Your task to perform on an android device: Is it going to rain this weekend? Image 0: 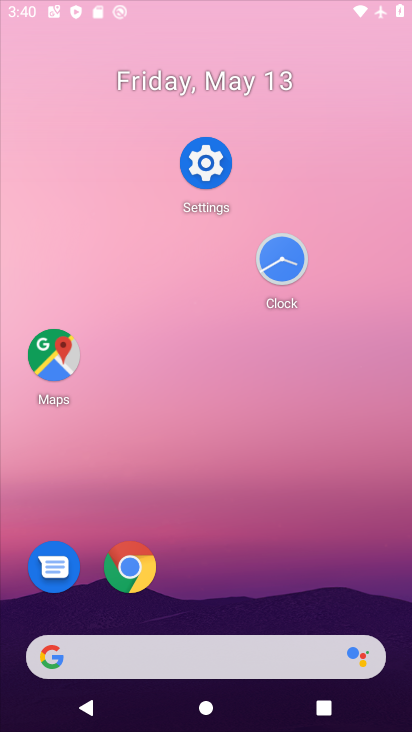
Step 0: click (224, 170)
Your task to perform on an android device: Is it going to rain this weekend? Image 1: 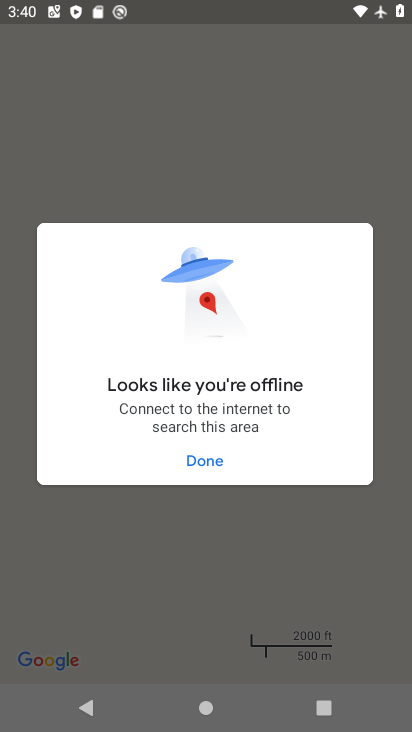
Step 1: click (229, 470)
Your task to perform on an android device: Is it going to rain this weekend? Image 2: 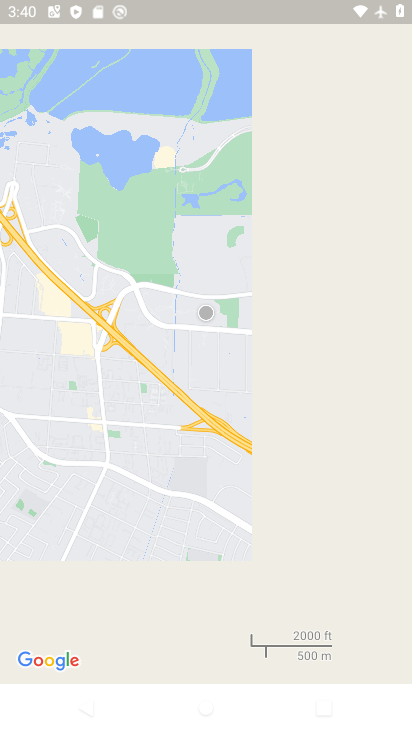
Step 2: press home button
Your task to perform on an android device: Is it going to rain this weekend? Image 3: 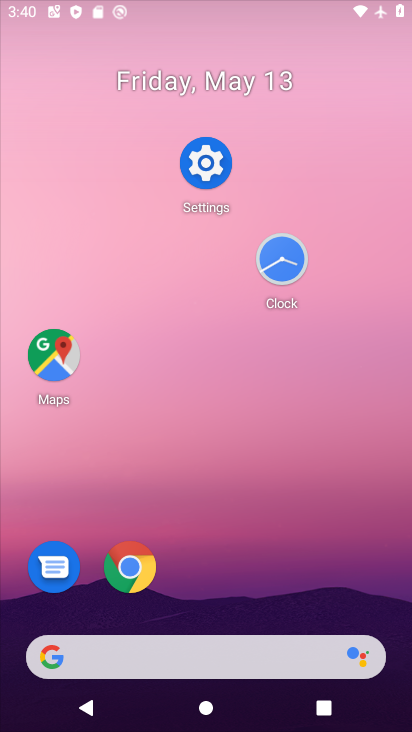
Step 3: drag from (217, 598) to (242, 154)
Your task to perform on an android device: Is it going to rain this weekend? Image 4: 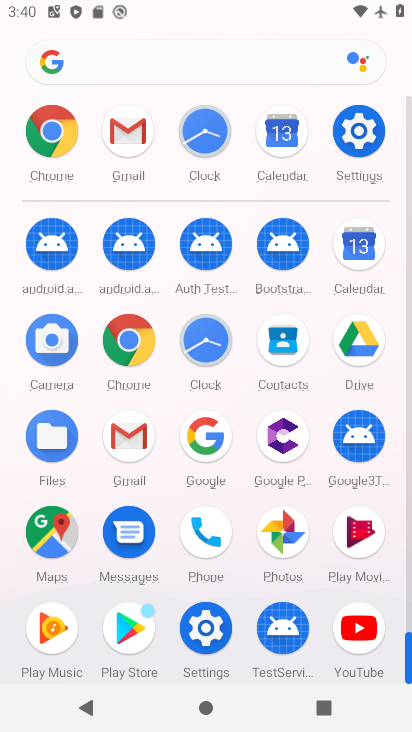
Step 4: click (343, 156)
Your task to perform on an android device: Is it going to rain this weekend? Image 5: 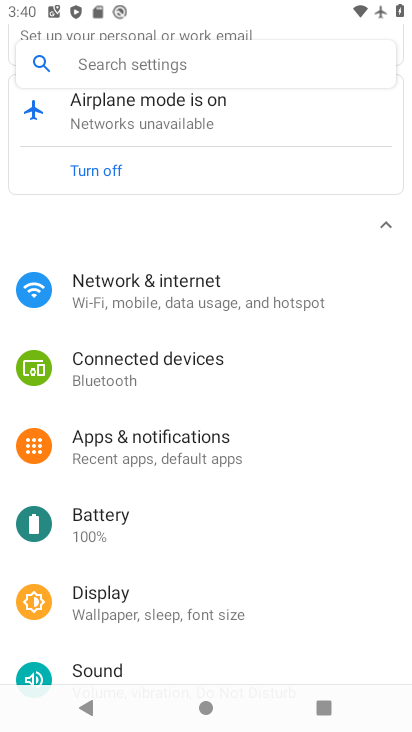
Step 5: click (269, 272)
Your task to perform on an android device: Is it going to rain this weekend? Image 6: 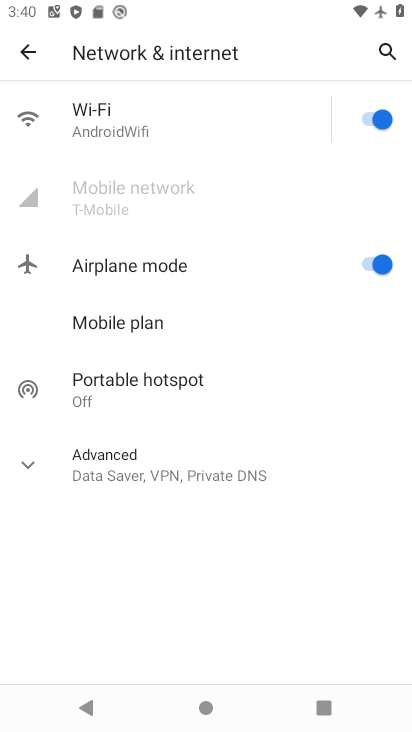
Step 6: click (364, 276)
Your task to perform on an android device: Is it going to rain this weekend? Image 7: 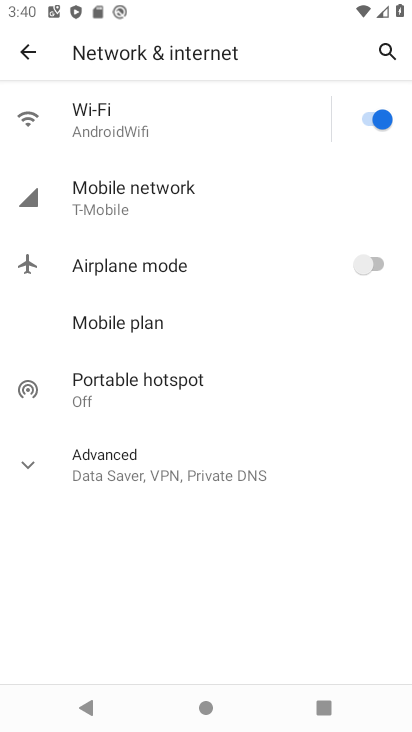
Step 7: press home button
Your task to perform on an android device: Is it going to rain this weekend? Image 8: 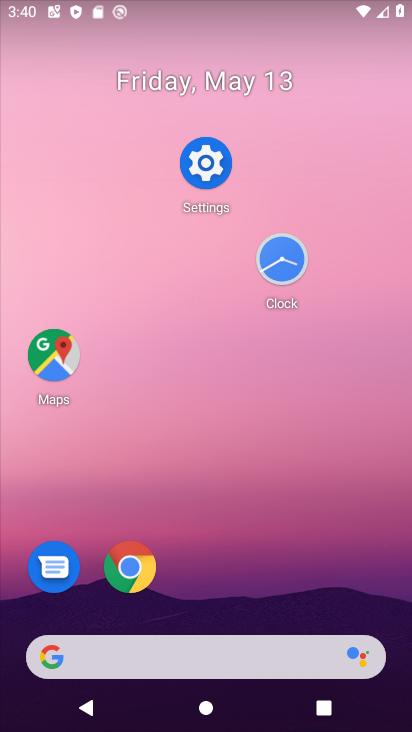
Step 8: click (220, 637)
Your task to perform on an android device: Is it going to rain this weekend? Image 9: 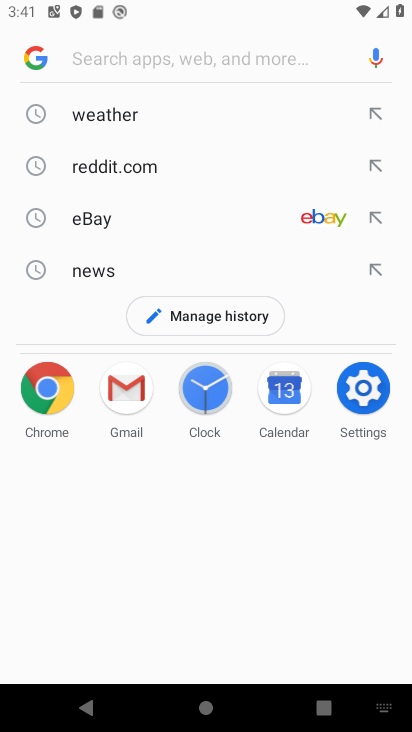
Step 9: click (157, 117)
Your task to perform on an android device: Is it going to rain this weekend? Image 10: 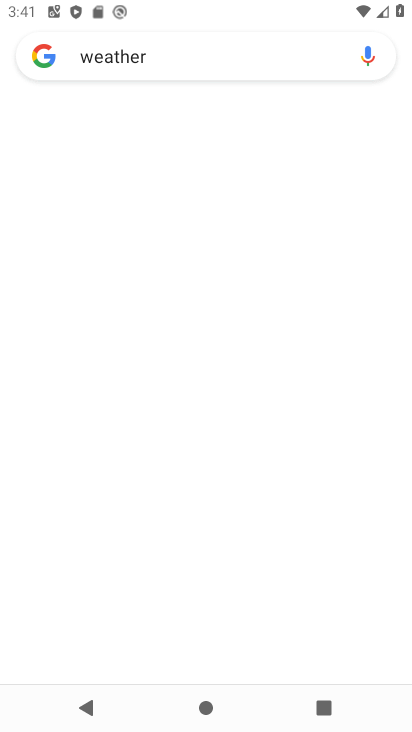
Step 10: task complete